Your task to perform on an android device: check data usage Image 0: 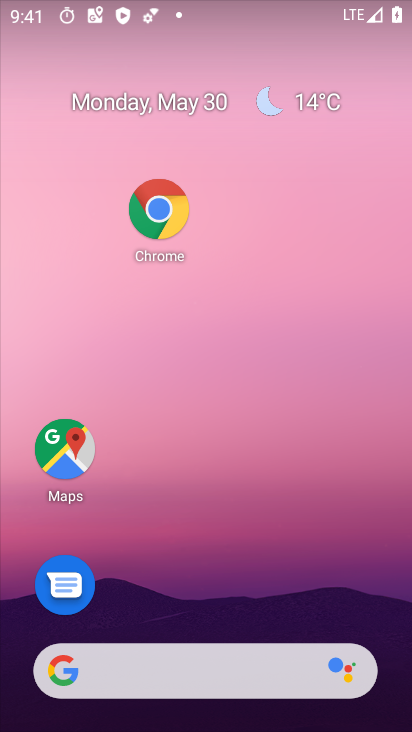
Step 0: drag from (249, 469) to (302, 1)
Your task to perform on an android device: check data usage Image 1: 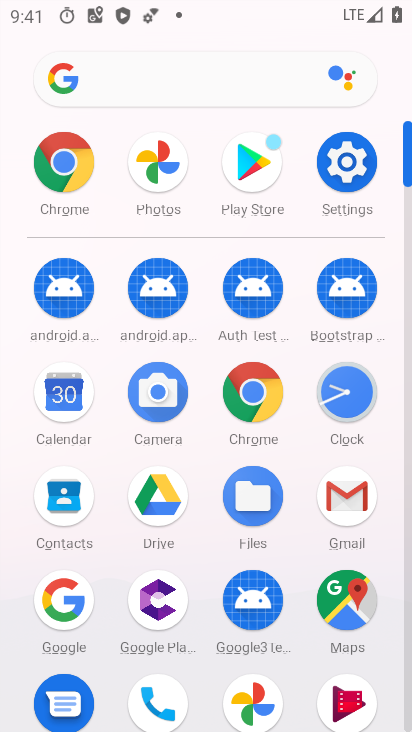
Step 1: click (338, 175)
Your task to perform on an android device: check data usage Image 2: 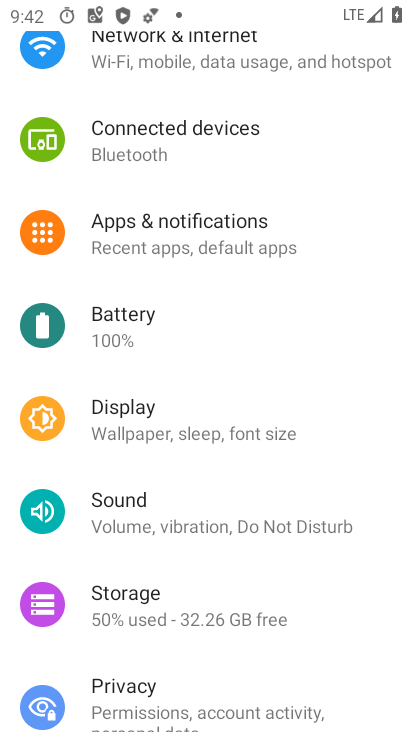
Step 2: click (170, 62)
Your task to perform on an android device: check data usage Image 3: 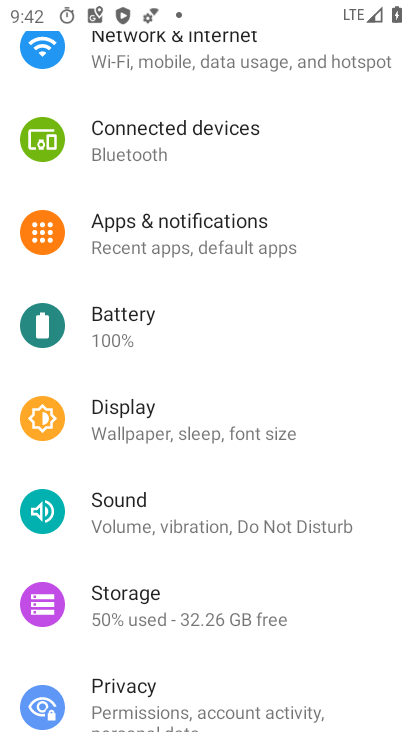
Step 3: click (170, 62)
Your task to perform on an android device: check data usage Image 4: 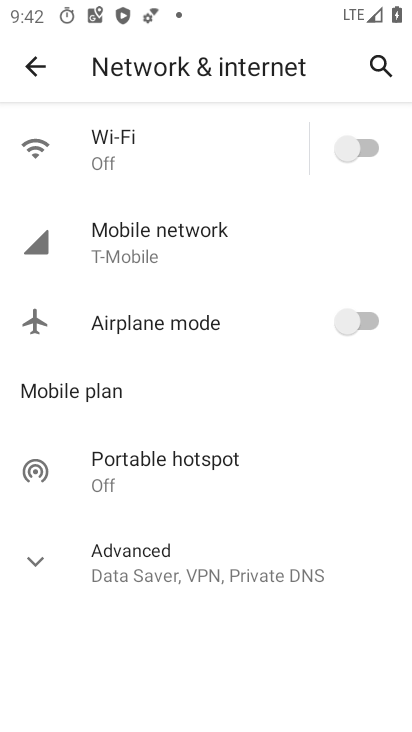
Step 4: click (157, 246)
Your task to perform on an android device: check data usage Image 5: 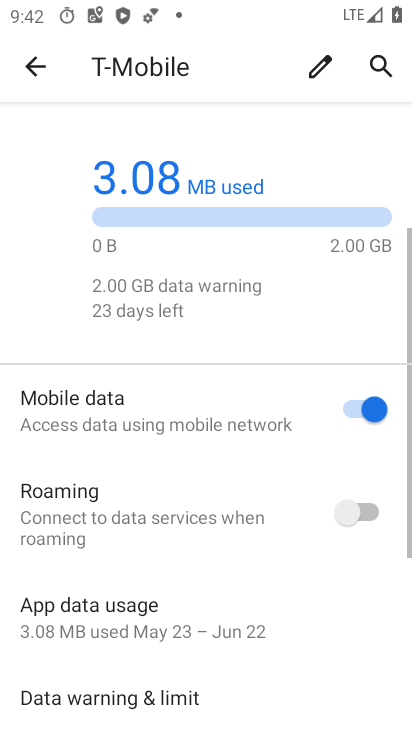
Step 5: task complete